Your task to perform on an android device: Search for hotels in Buenos aires Image 0: 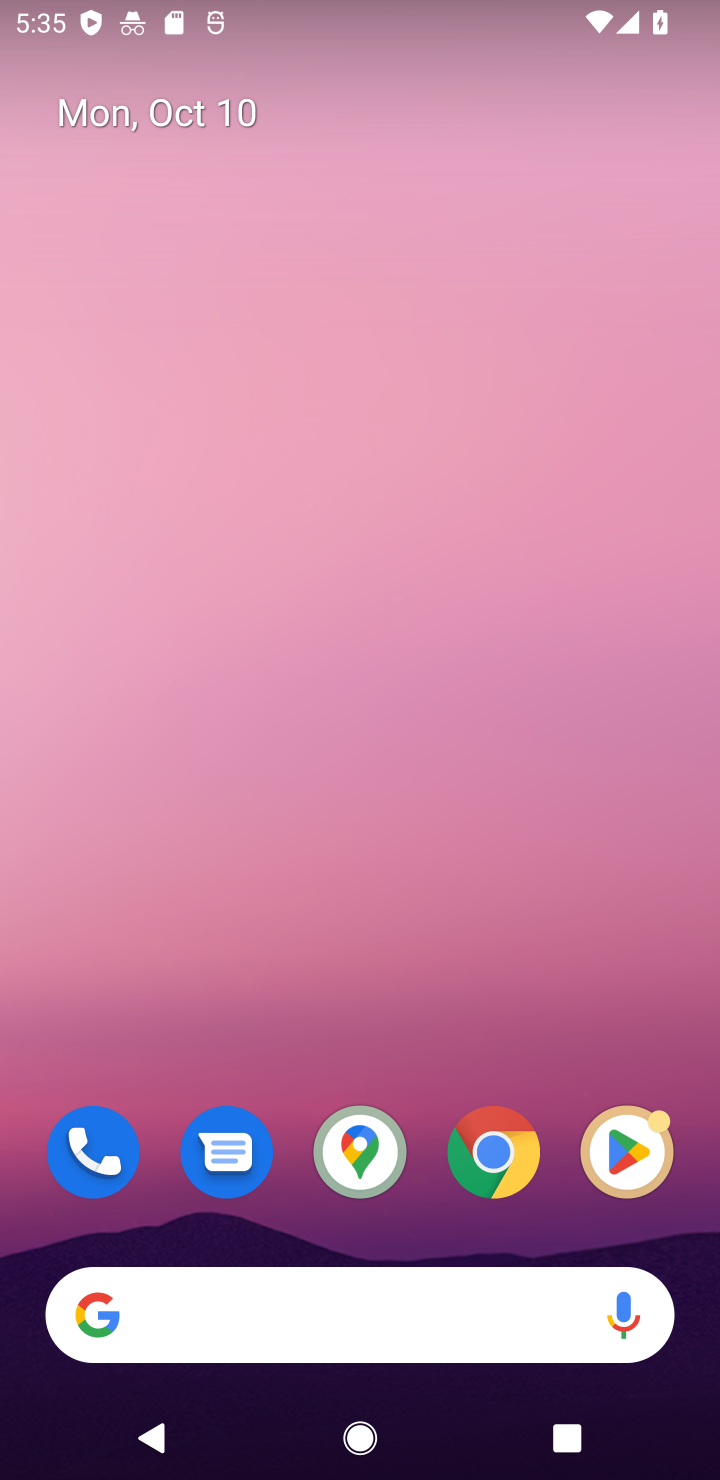
Step 0: click (501, 1157)
Your task to perform on an android device: Search for hotels in Buenos aires Image 1: 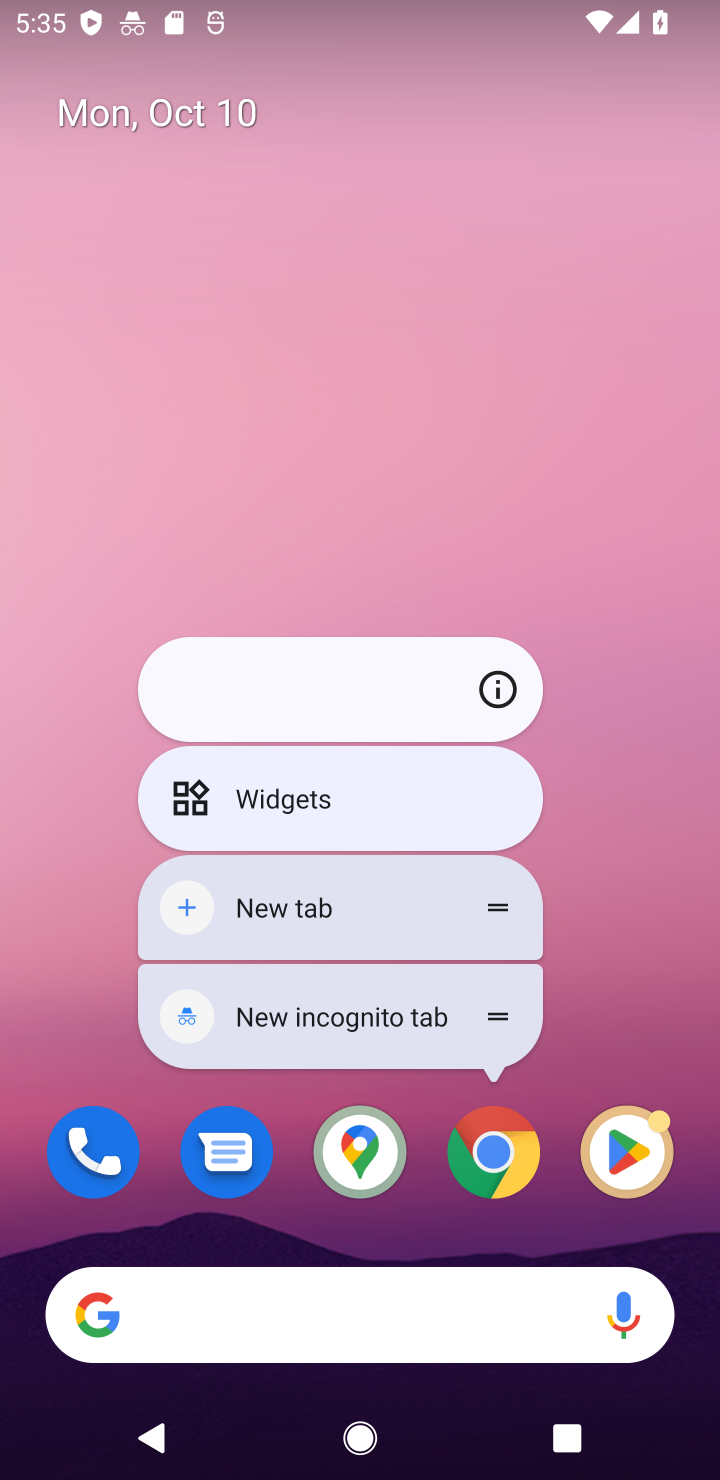
Step 1: click (493, 1152)
Your task to perform on an android device: Search for hotels in Buenos aires Image 2: 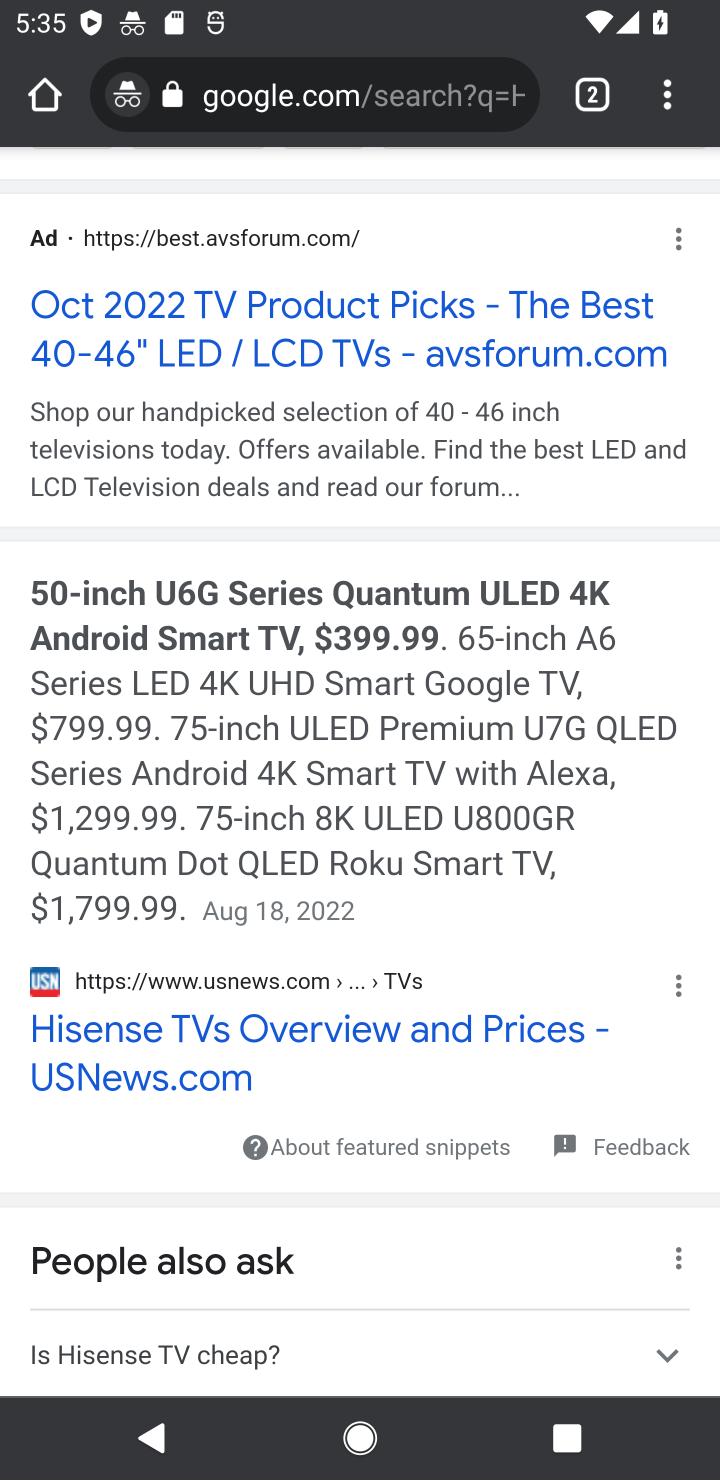
Step 2: click (374, 89)
Your task to perform on an android device: Search for hotels in Buenos aires Image 3: 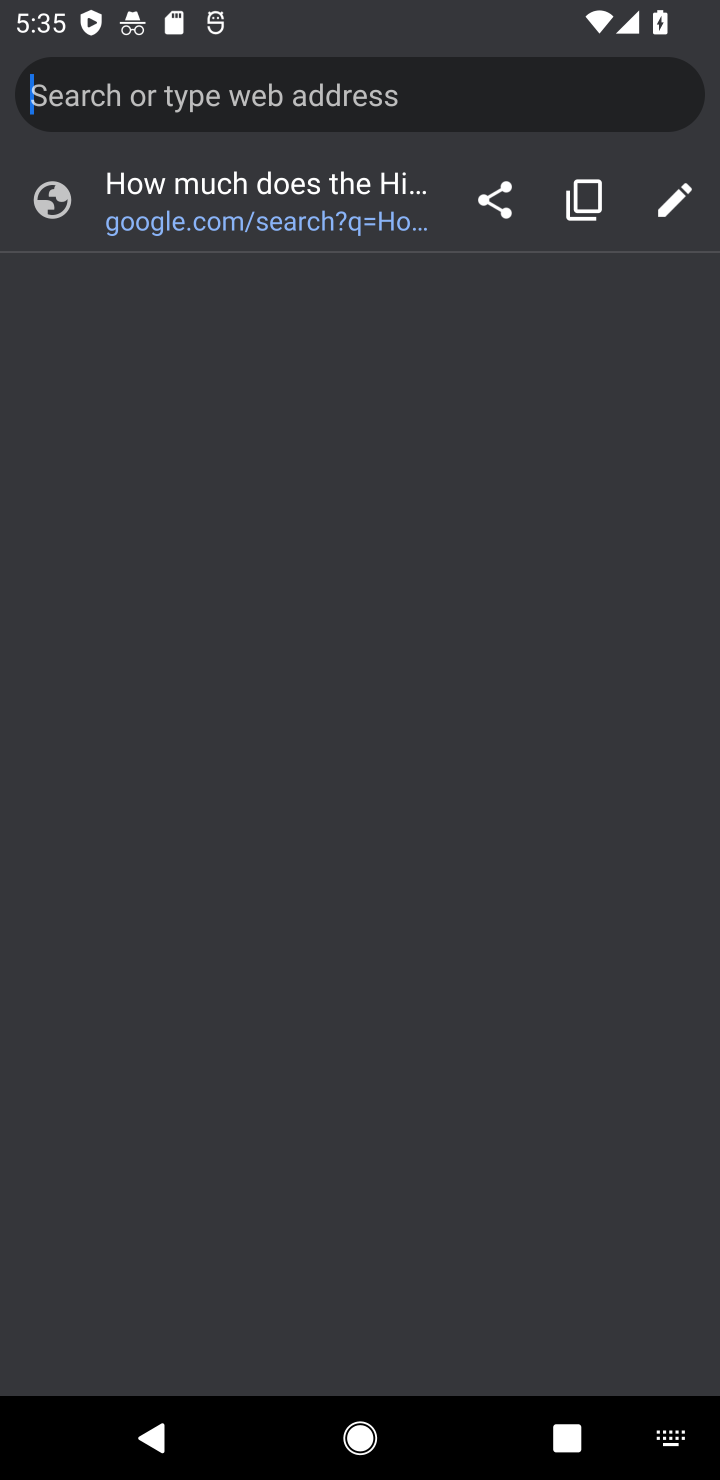
Step 3: type "hotel in Buenos aires"
Your task to perform on an android device: Search for hotels in Buenos aires Image 4: 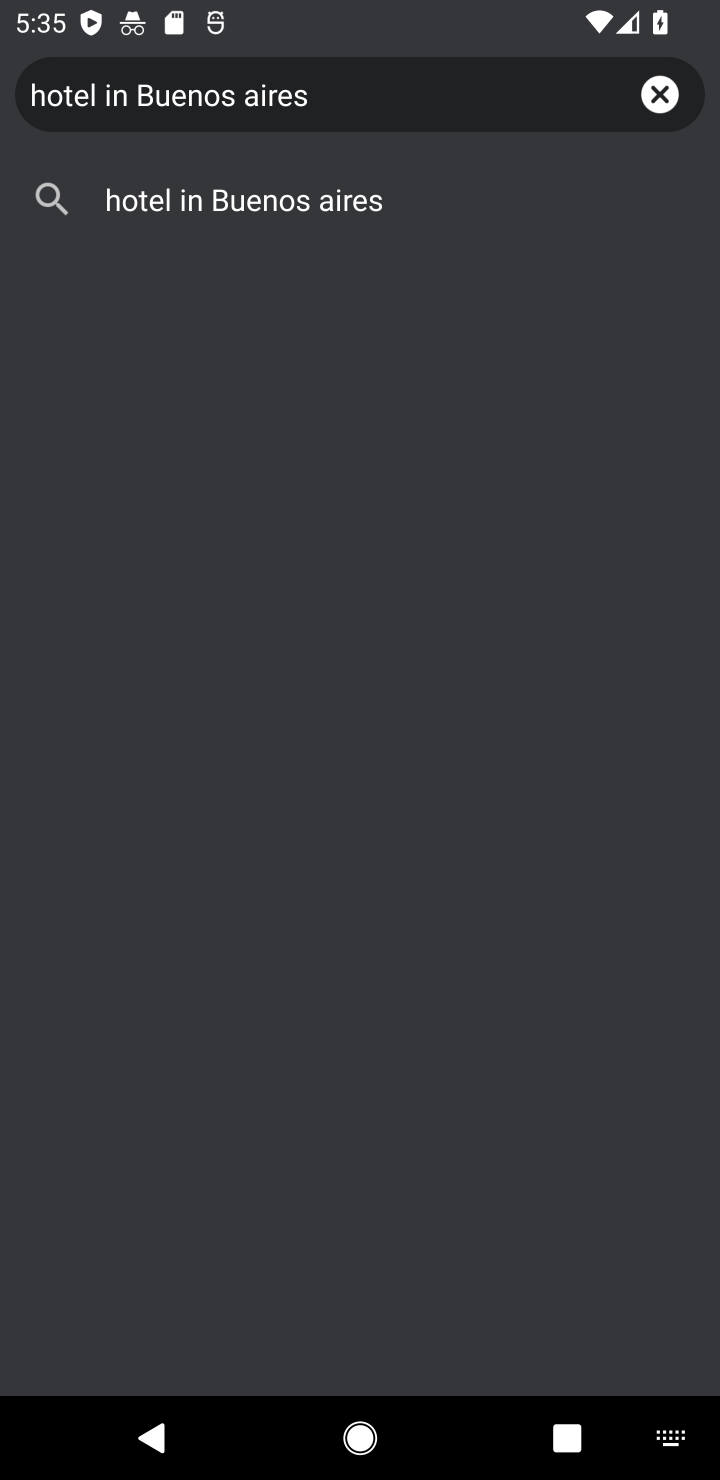
Step 4: click (347, 199)
Your task to perform on an android device: Search for hotels in Buenos aires Image 5: 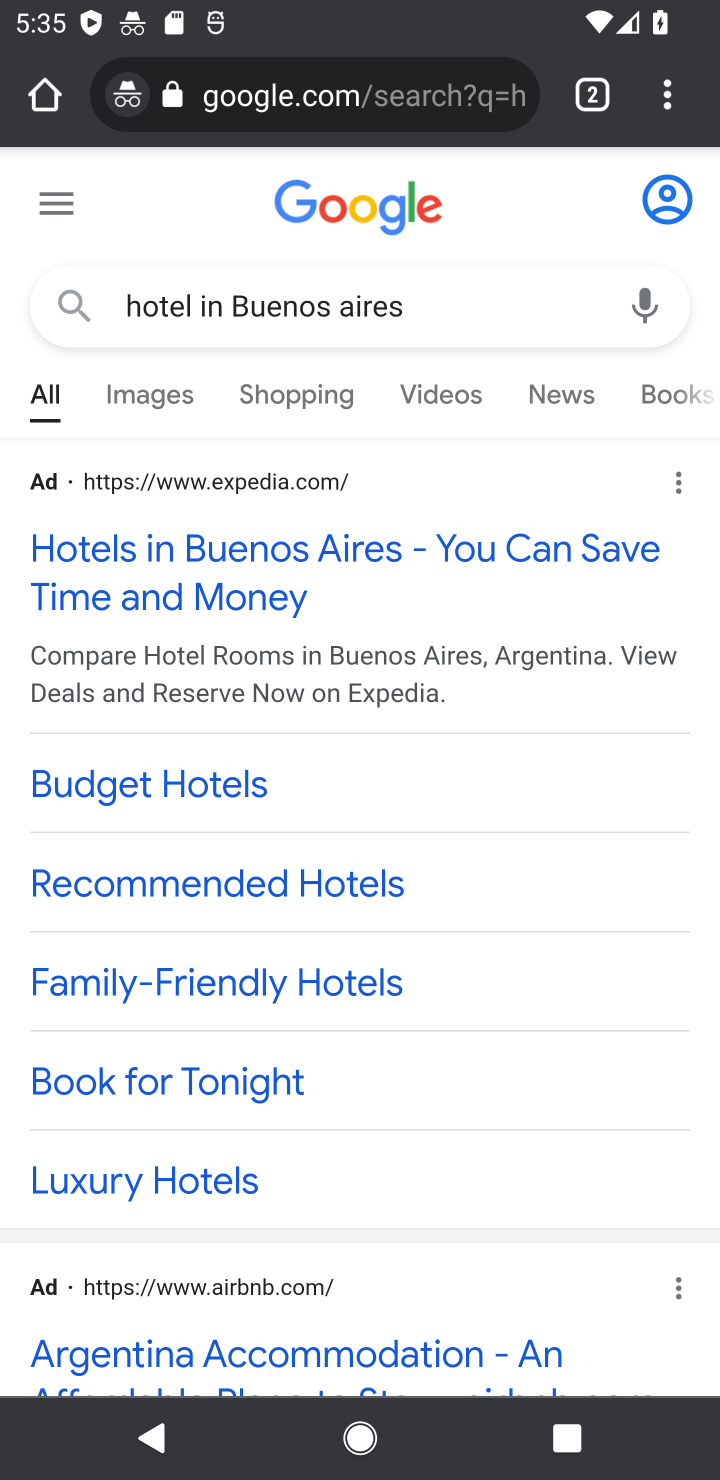
Step 5: task complete